Your task to perform on an android device: check the backup settings in the google photos Image 0: 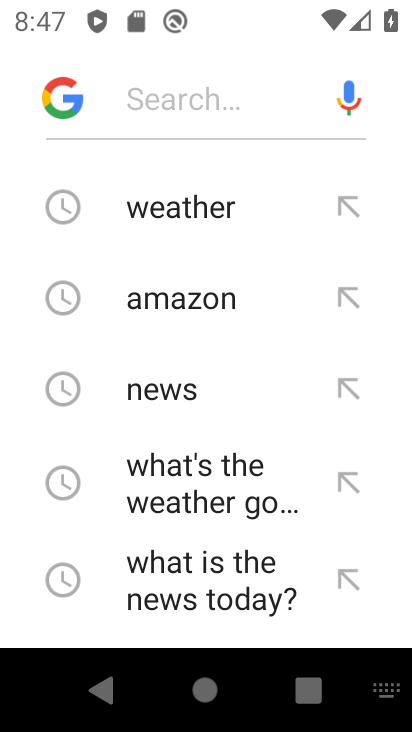
Step 0: press home button
Your task to perform on an android device: check the backup settings in the google photos Image 1: 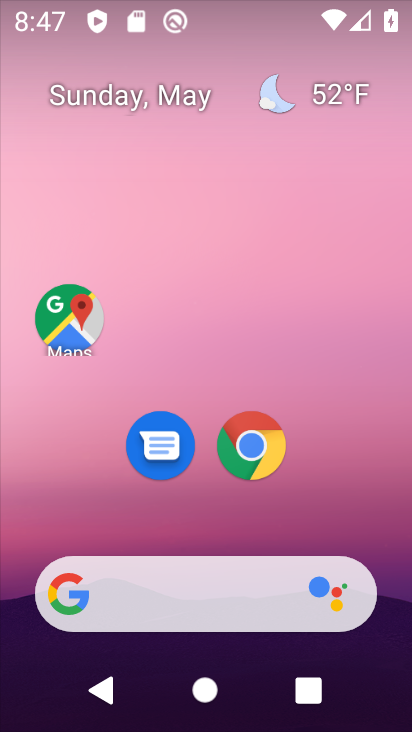
Step 1: click (298, 10)
Your task to perform on an android device: check the backup settings in the google photos Image 2: 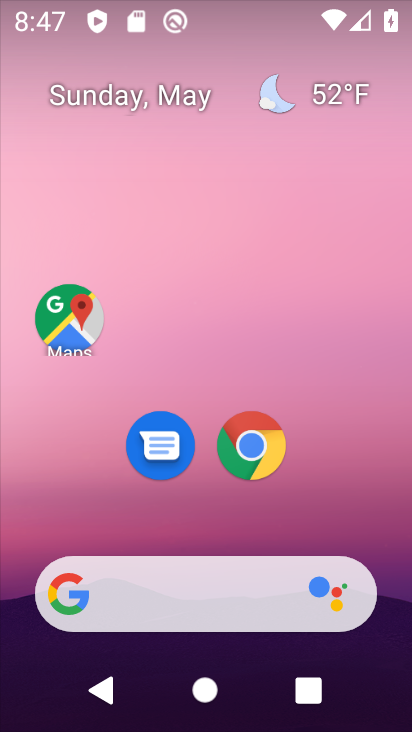
Step 2: drag from (329, 522) to (274, 67)
Your task to perform on an android device: check the backup settings in the google photos Image 3: 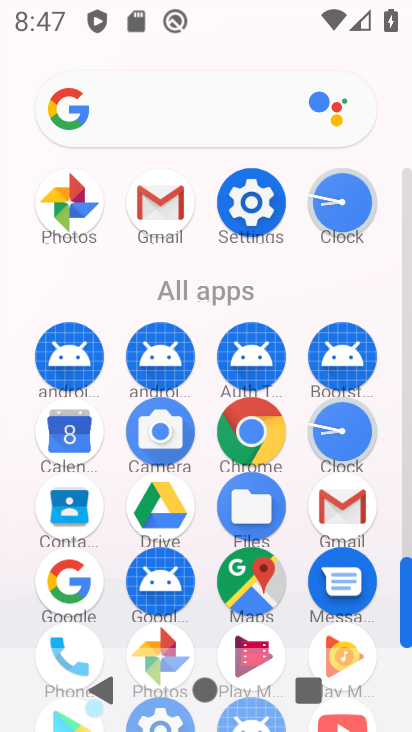
Step 3: click (68, 203)
Your task to perform on an android device: check the backup settings in the google photos Image 4: 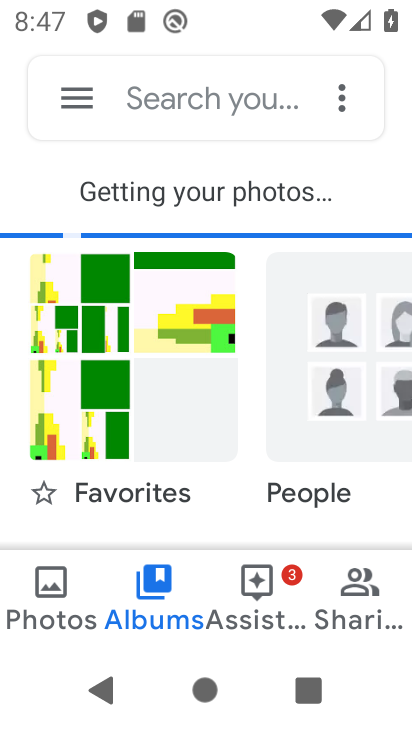
Step 4: click (75, 109)
Your task to perform on an android device: check the backup settings in the google photos Image 5: 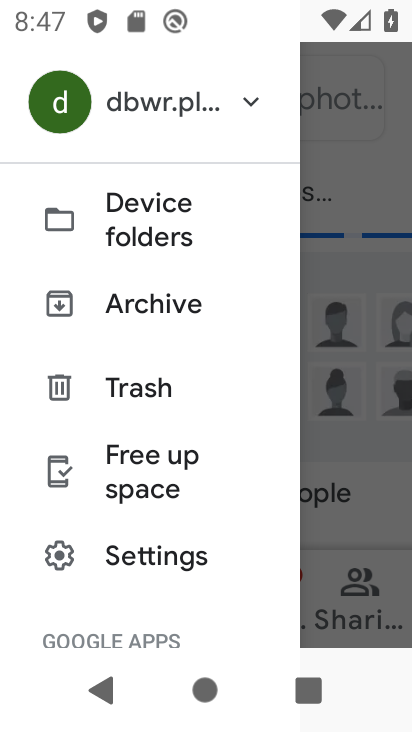
Step 5: click (133, 573)
Your task to perform on an android device: check the backup settings in the google photos Image 6: 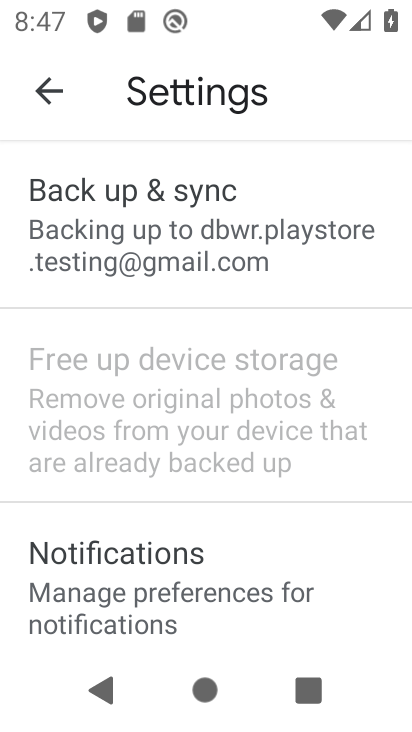
Step 6: click (131, 205)
Your task to perform on an android device: check the backup settings in the google photos Image 7: 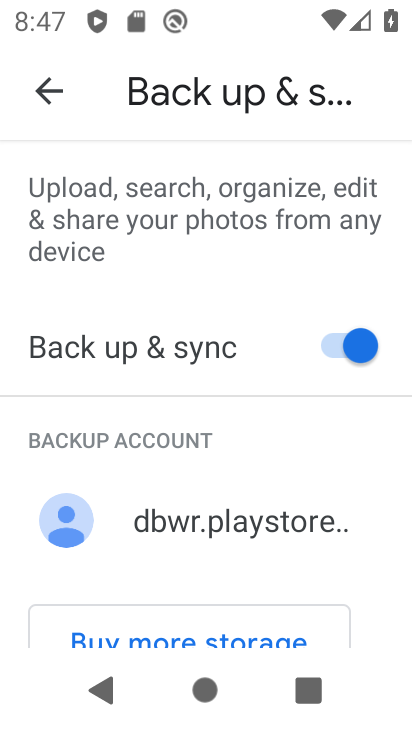
Step 7: drag from (194, 402) to (202, 142)
Your task to perform on an android device: check the backup settings in the google photos Image 8: 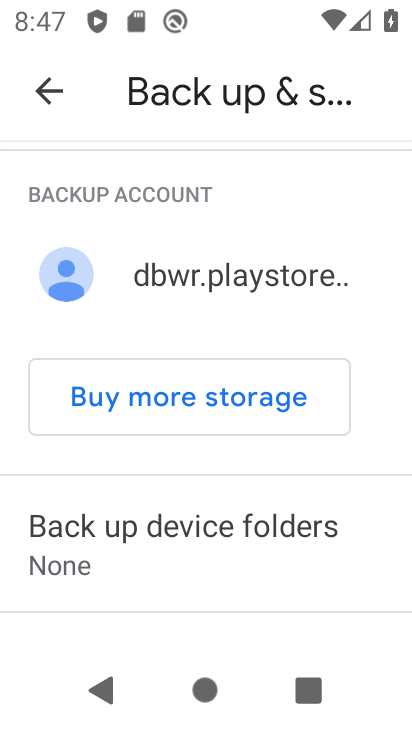
Step 8: drag from (177, 470) to (149, 133)
Your task to perform on an android device: check the backup settings in the google photos Image 9: 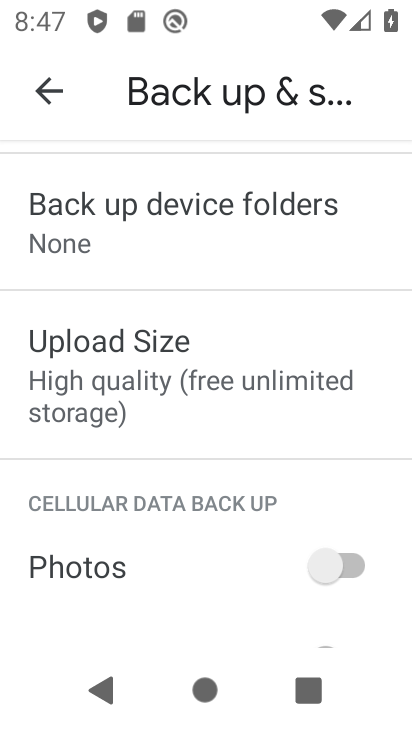
Step 9: click (141, 207)
Your task to perform on an android device: check the backup settings in the google photos Image 10: 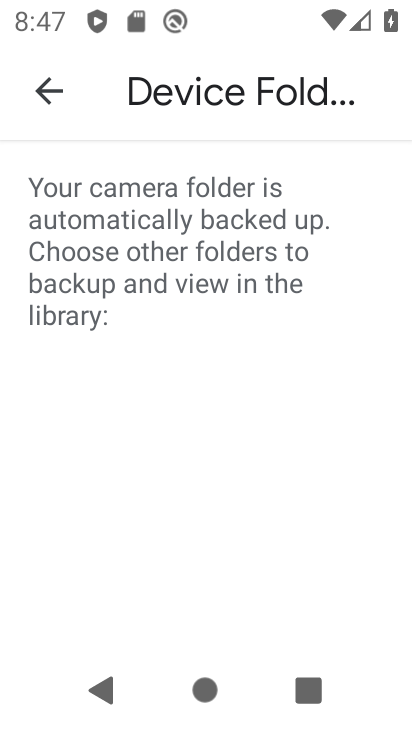
Step 10: click (197, 229)
Your task to perform on an android device: check the backup settings in the google photos Image 11: 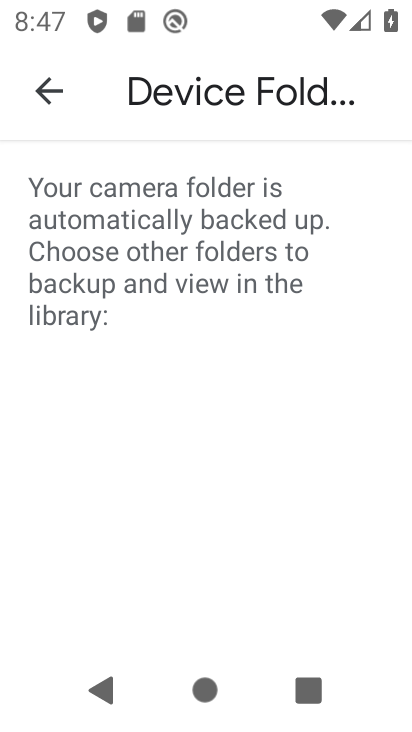
Step 11: click (29, 97)
Your task to perform on an android device: check the backup settings in the google photos Image 12: 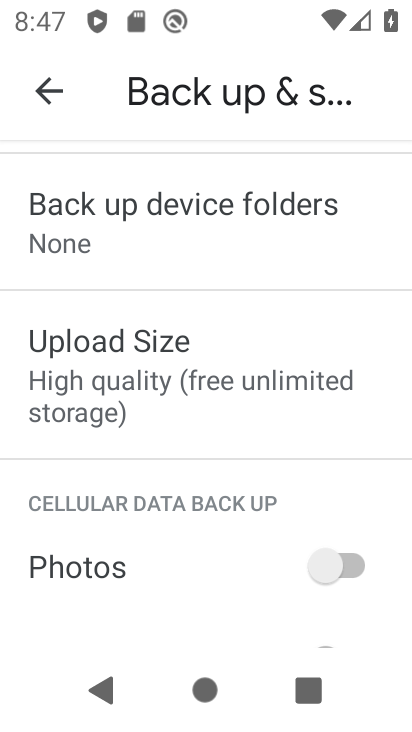
Step 12: task complete